Your task to perform on an android device: Show me productivity apps on the Play Store Image 0: 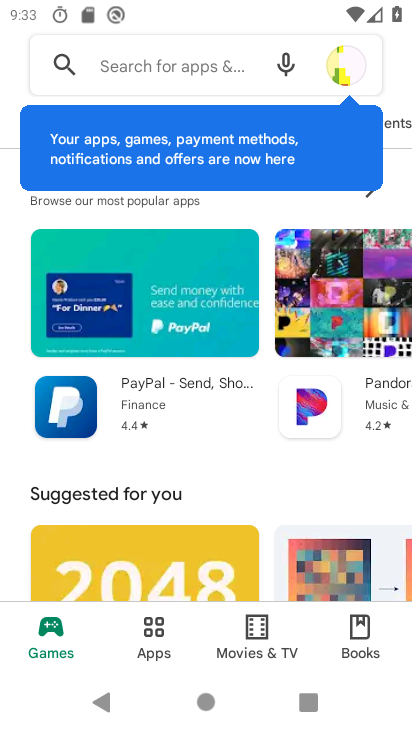
Step 0: press home button
Your task to perform on an android device: Show me productivity apps on the Play Store Image 1: 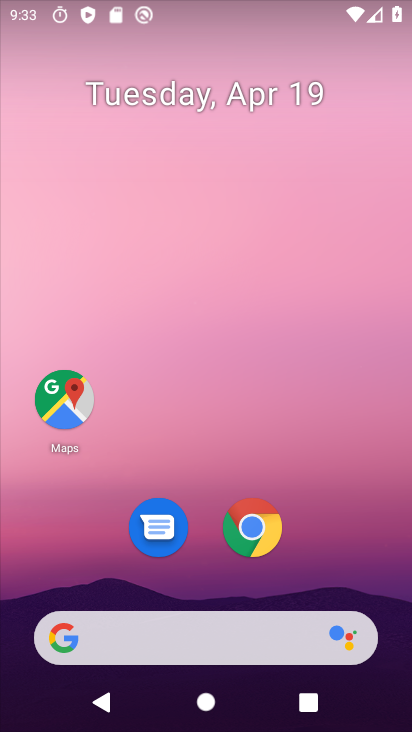
Step 1: drag from (256, 670) to (354, 191)
Your task to perform on an android device: Show me productivity apps on the Play Store Image 2: 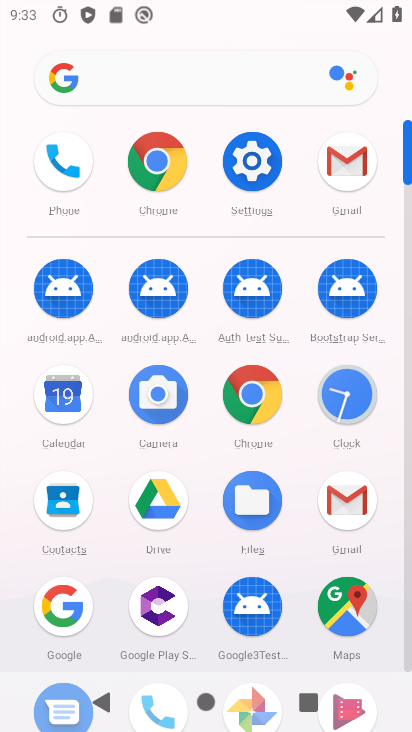
Step 2: drag from (214, 549) to (213, 371)
Your task to perform on an android device: Show me productivity apps on the Play Store Image 3: 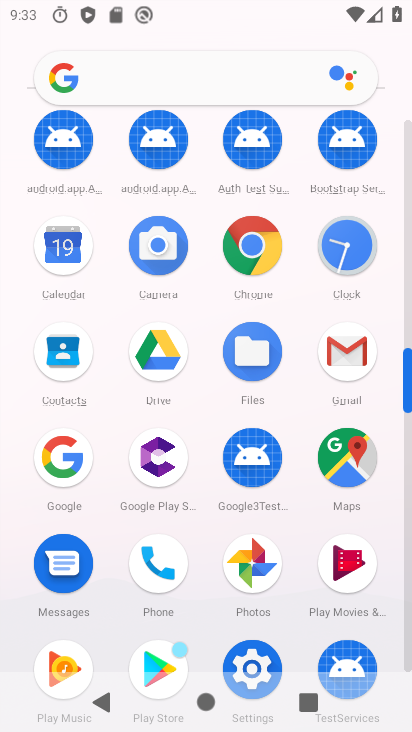
Step 3: click (158, 646)
Your task to perform on an android device: Show me productivity apps on the Play Store Image 4: 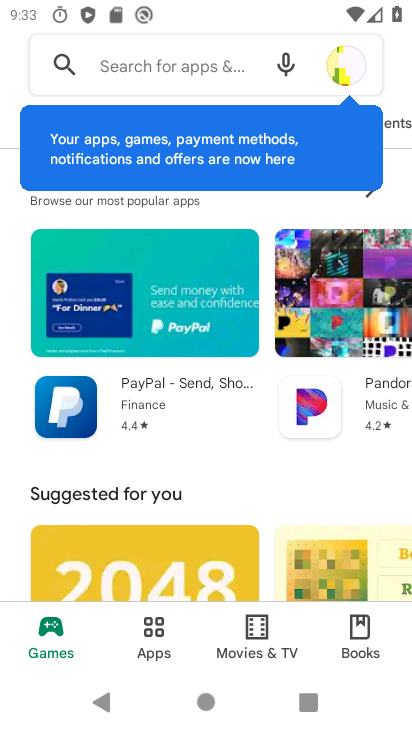
Step 4: click (183, 54)
Your task to perform on an android device: Show me productivity apps on the Play Store Image 5: 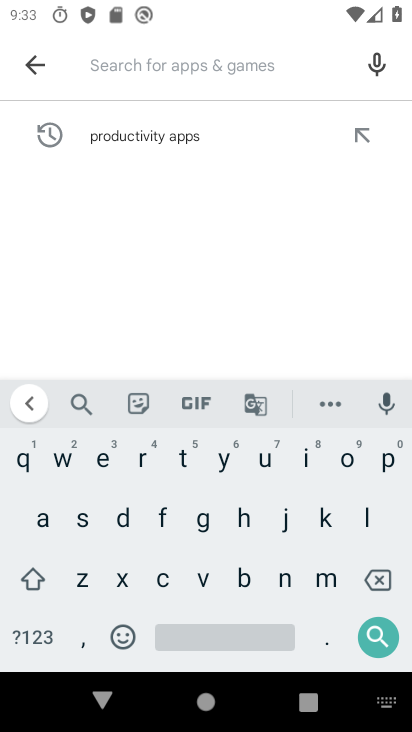
Step 5: click (135, 130)
Your task to perform on an android device: Show me productivity apps on the Play Store Image 6: 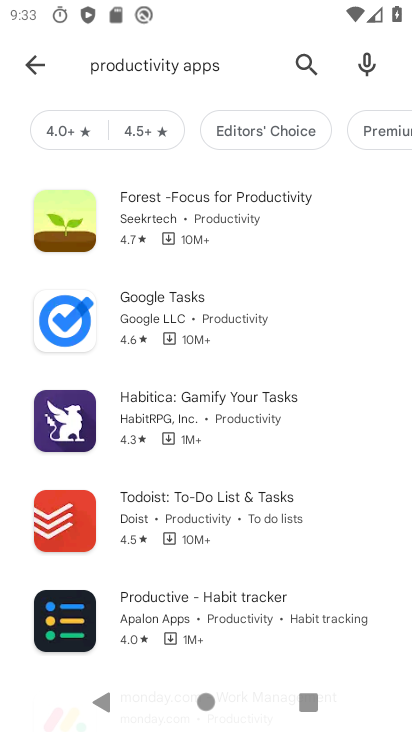
Step 6: task complete